Your task to perform on an android device: Show me popular games on the Play Store Image 0: 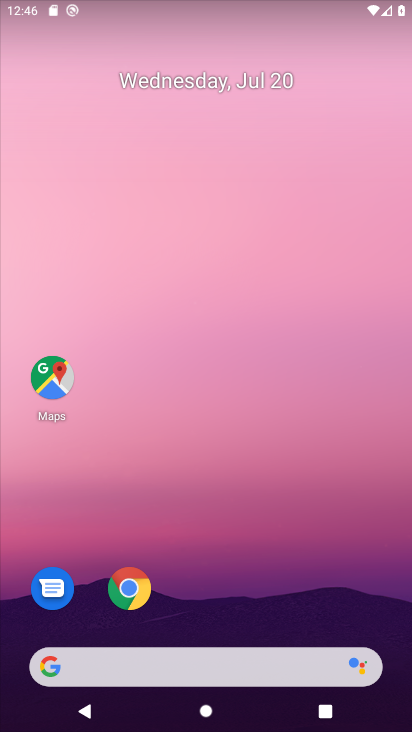
Step 0: drag from (188, 488) to (188, 100)
Your task to perform on an android device: Show me popular games on the Play Store Image 1: 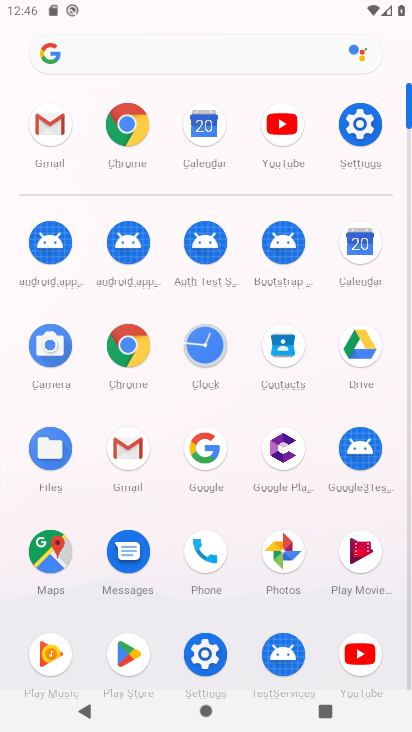
Step 1: click (125, 654)
Your task to perform on an android device: Show me popular games on the Play Store Image 2: 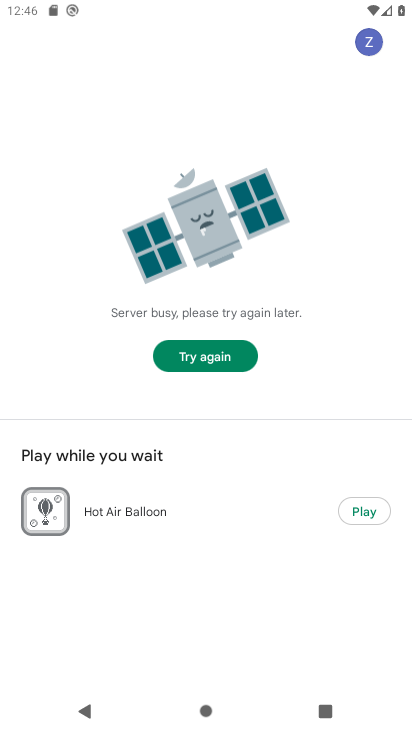
Step 2: task complete